Your task to perform on an android device: Open wifi settings Image 0: 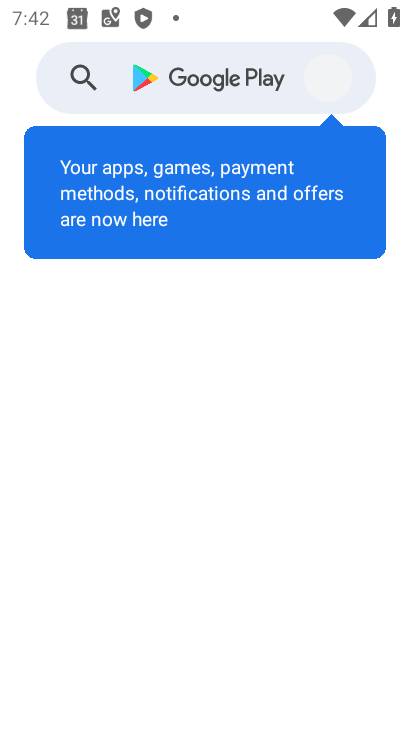
Step 0: press back button
Your task to perform on an android device: Open wifi settings Image 1: 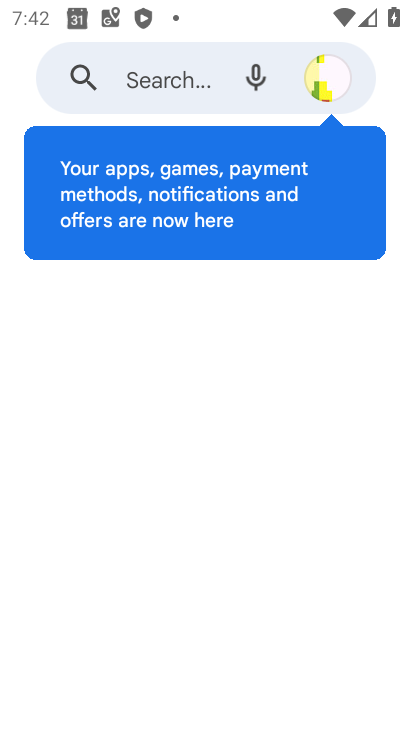
Step 1: press home button
Your task to perform on an android device: Open wifi settings Image 2: 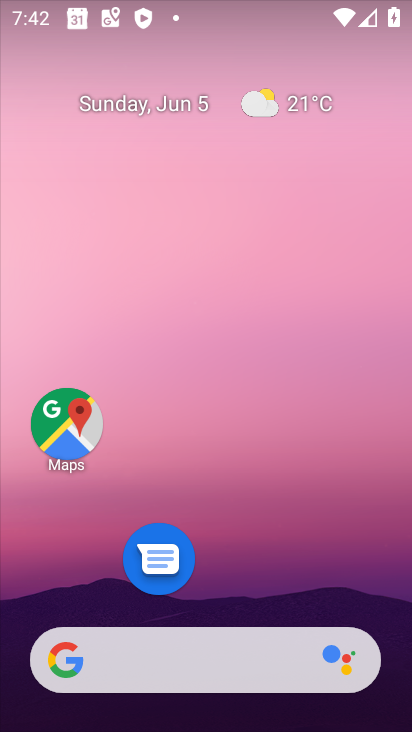
Step 2: drag from (244, 624) to (150, 123)
Your task to perform on an android device: Open wifi settings Image 3: 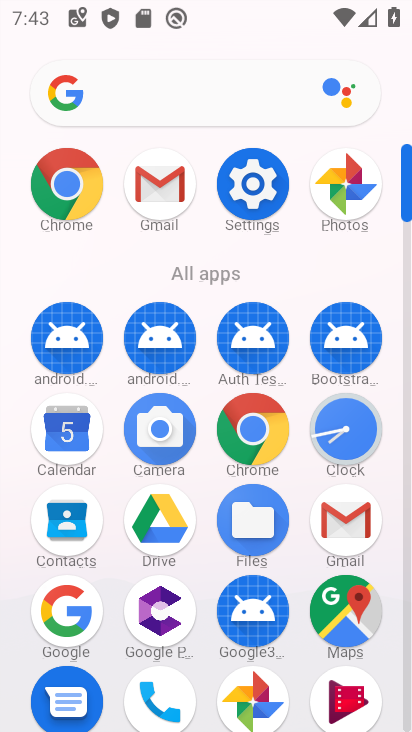
Step 3: click (247, 219)
Your task to perform on an android device: Open wifi settings Image 4: 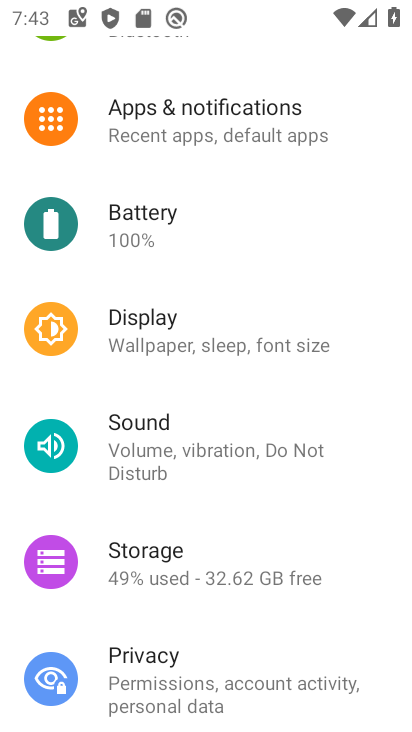
Step 4: drag from (147, 166) to (117, 730)
Your task to perform on an android device: Open wifi settings Image 5: 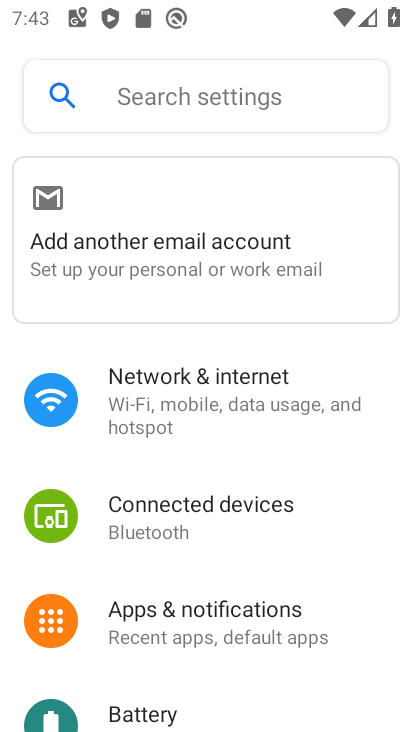
Step 5: click (124, 431)
Your task to perform on an android device: Open wifi settings Image 6: 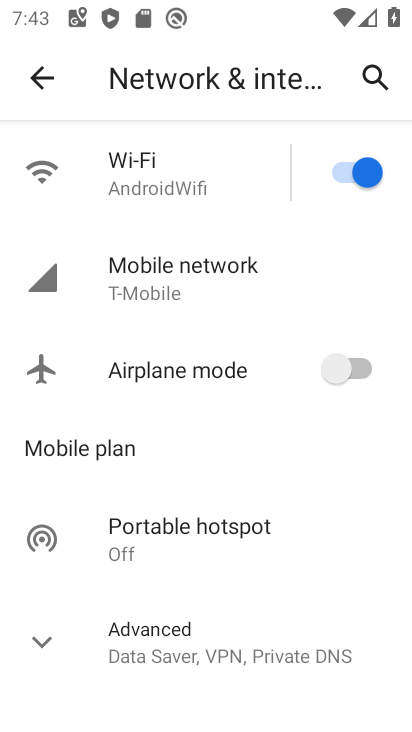
Step 6: click (149, 191)
Your task to perform on an android device: Open wifi settings Image 7: 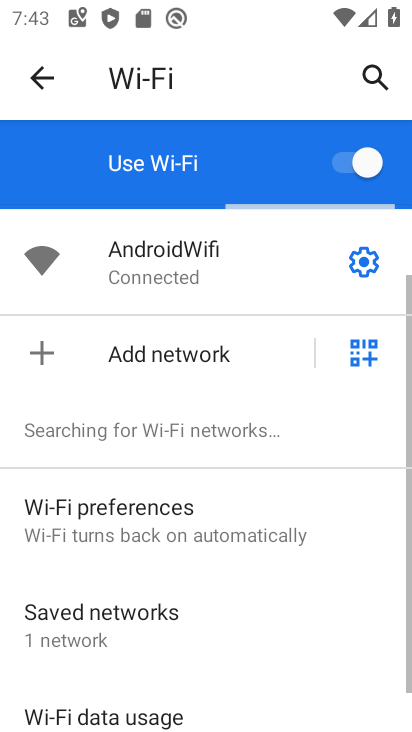
Step 7: task complete